Your task to perform on an android device: see creations saved in the google photos Image 0: 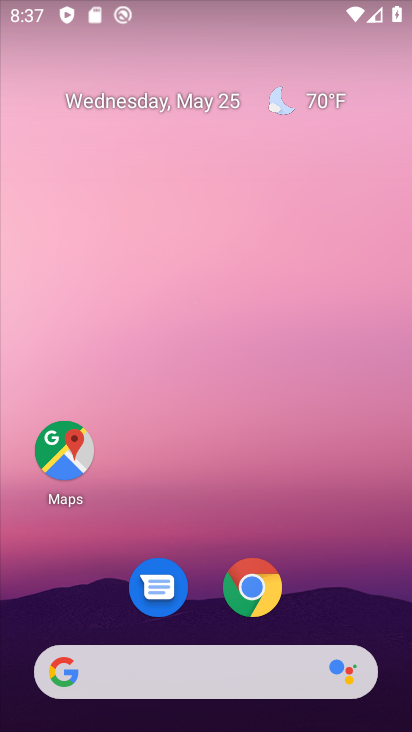
Step 0: drag from (200, 580) to (202, 1)
Your task to perform on an android device: see creations saved in the google photos Image 1: 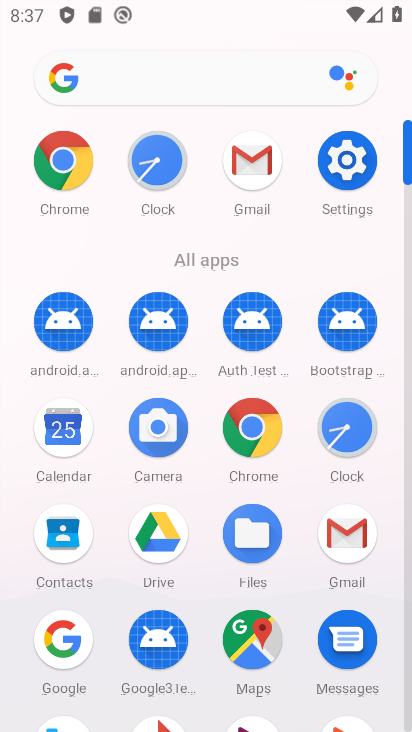
Step 1: drag from (210, 564) to (220, 183)
Your task to perform on an android device: see creations saved in the google photos Image 2: 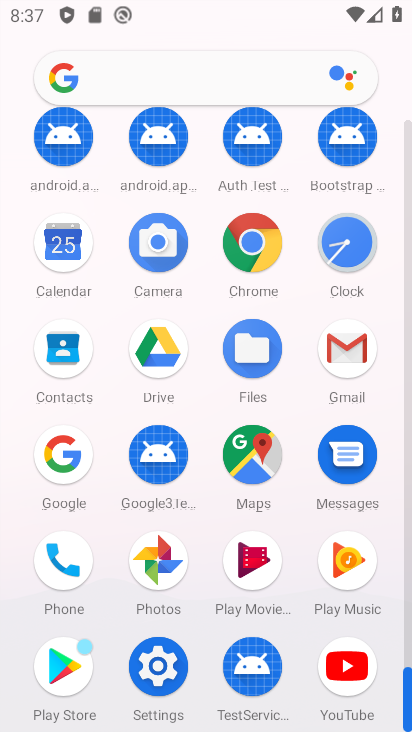
Step 2: click (171, 573)
Your task to perform on an android device: see creations saved in the google photos Image 3: 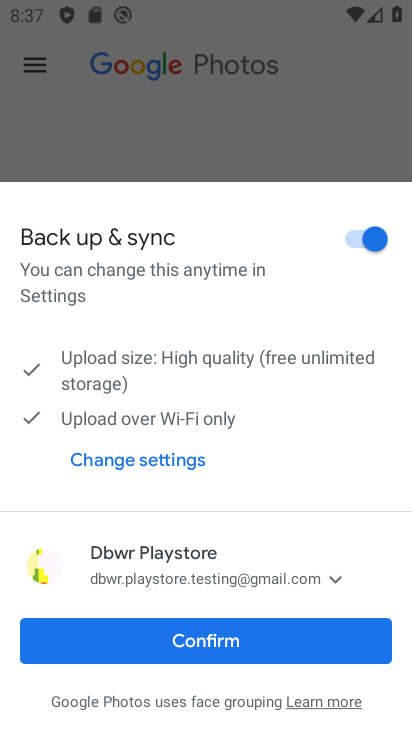
Step 3: click (229, 649)
Your task to perform on an android device: see creations saved in the google photos Image 4: 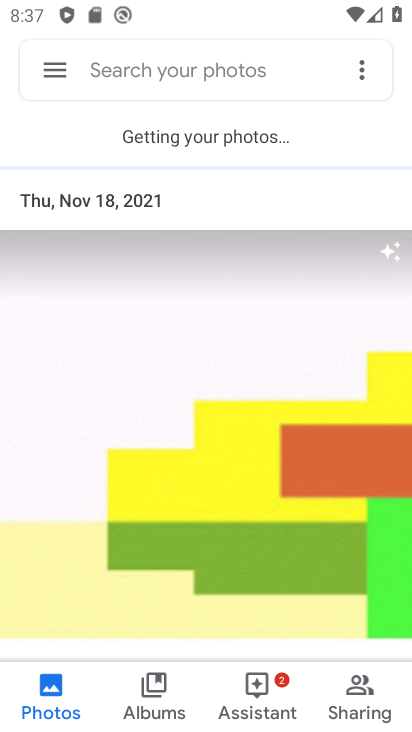
Step 4: click (192, 71)
Your task to perform on an android device: see creations saved in the google photos Image 5: 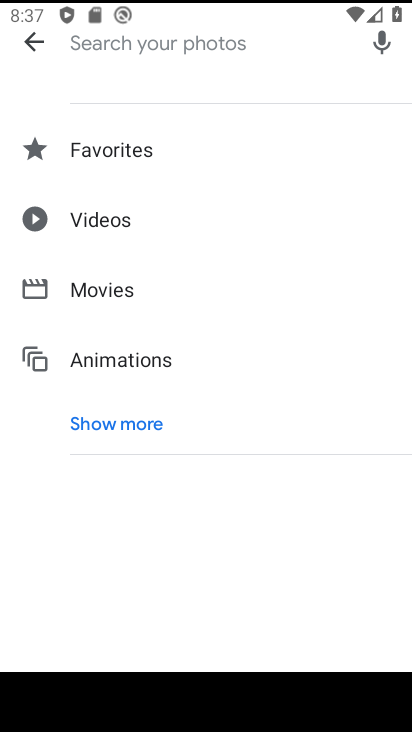
Step 5: type "creations"
Your task to perform on an android device: see creations saved in the google photos Image 6: 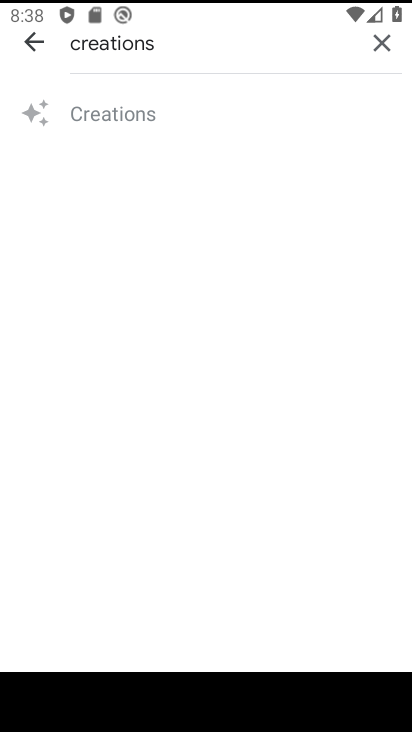
Step 6: click (125, 119)
Your task to perform on an android device: see creations saved in the google photos Image 7: 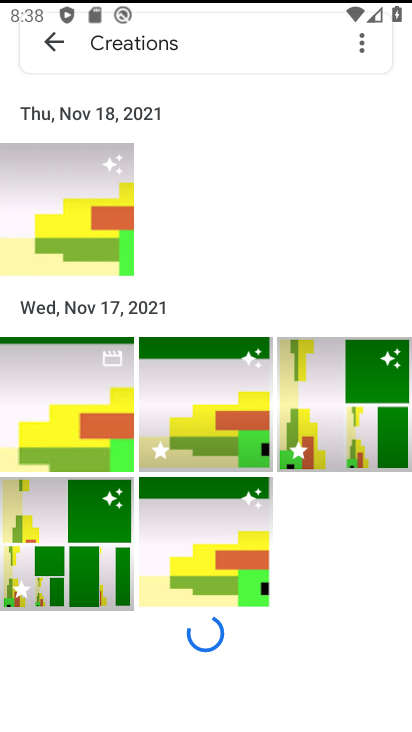
Step 7: task complete